Your task to perform on an android device: move an email to a new category in the gmail app Image 0: 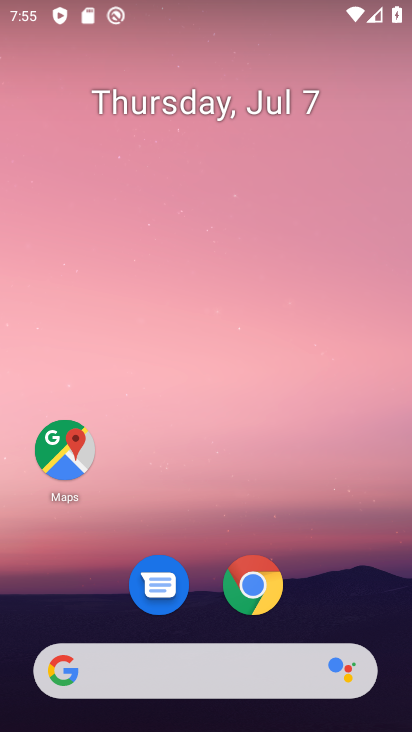
Step 0: drag from (332, 569) to (358, 8)
Your task to perform on an android device: move an email to a new category in the gmail app Image 1: 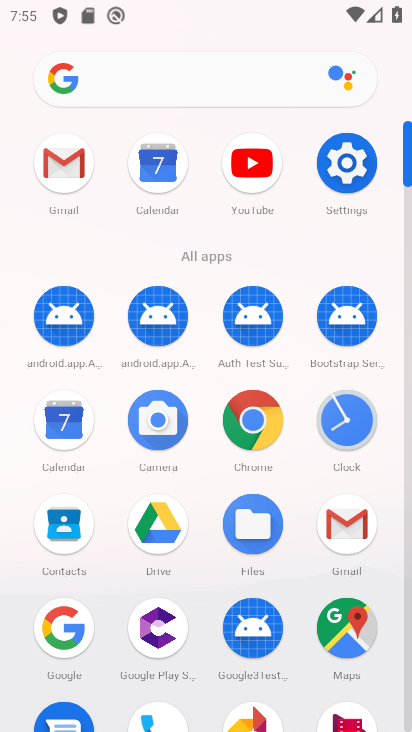
Step 1: click (334, 520)
Your task to perform on an android device: move an email to a new category in the gmail app Image 2: 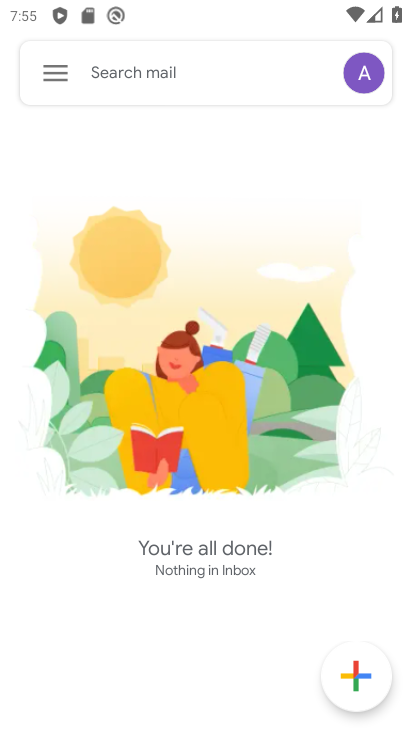
Step 2: click (57, 72)
Your task to perform on an android device: move an email to a new category in the gmail app Image 3: 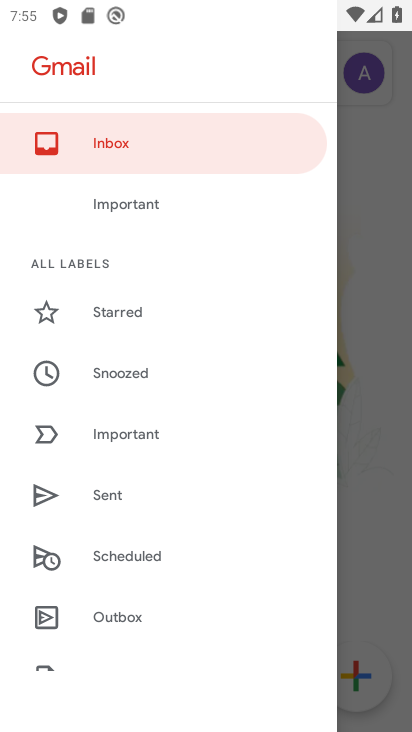
Step 3: drag from (193, 501) to (212, 177)
Your task to perform on an android device: move an email to a new category in the gmail app Image 4: 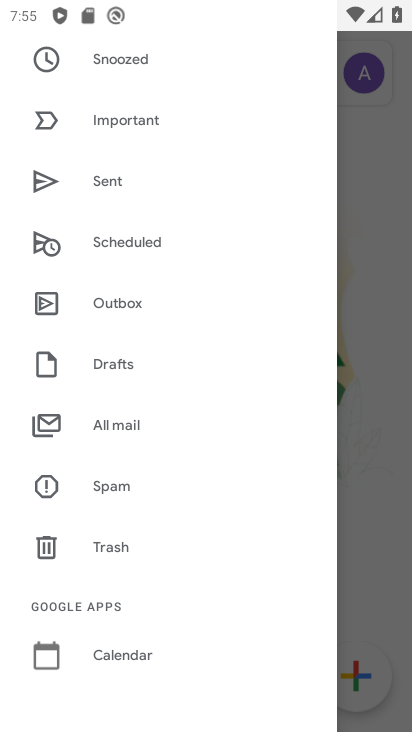
Step 4: click (137, 416)
Your task to perform on an android device: move an email to a new category in the gmail app Image 5: 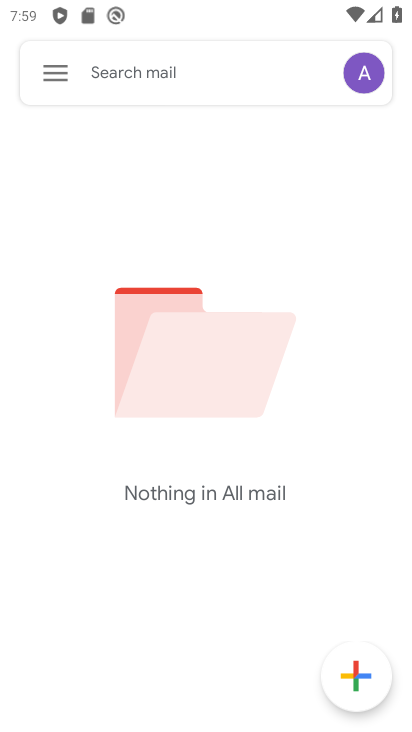
Step 5: task complete